Your task to perform on an android device: empty trash in google photos Image 0: 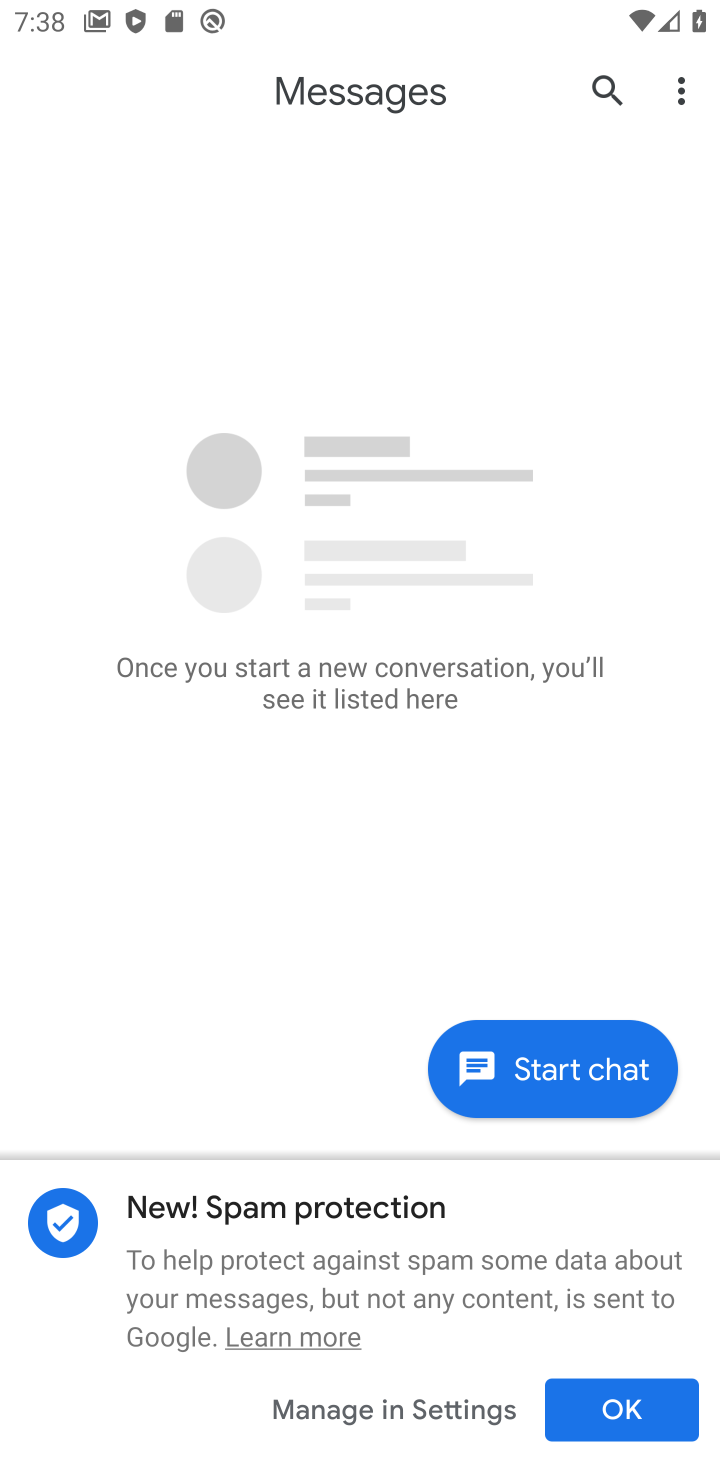
Step 0: press home button
Your task to perform on an android device: empty trash in google photos Image 1: 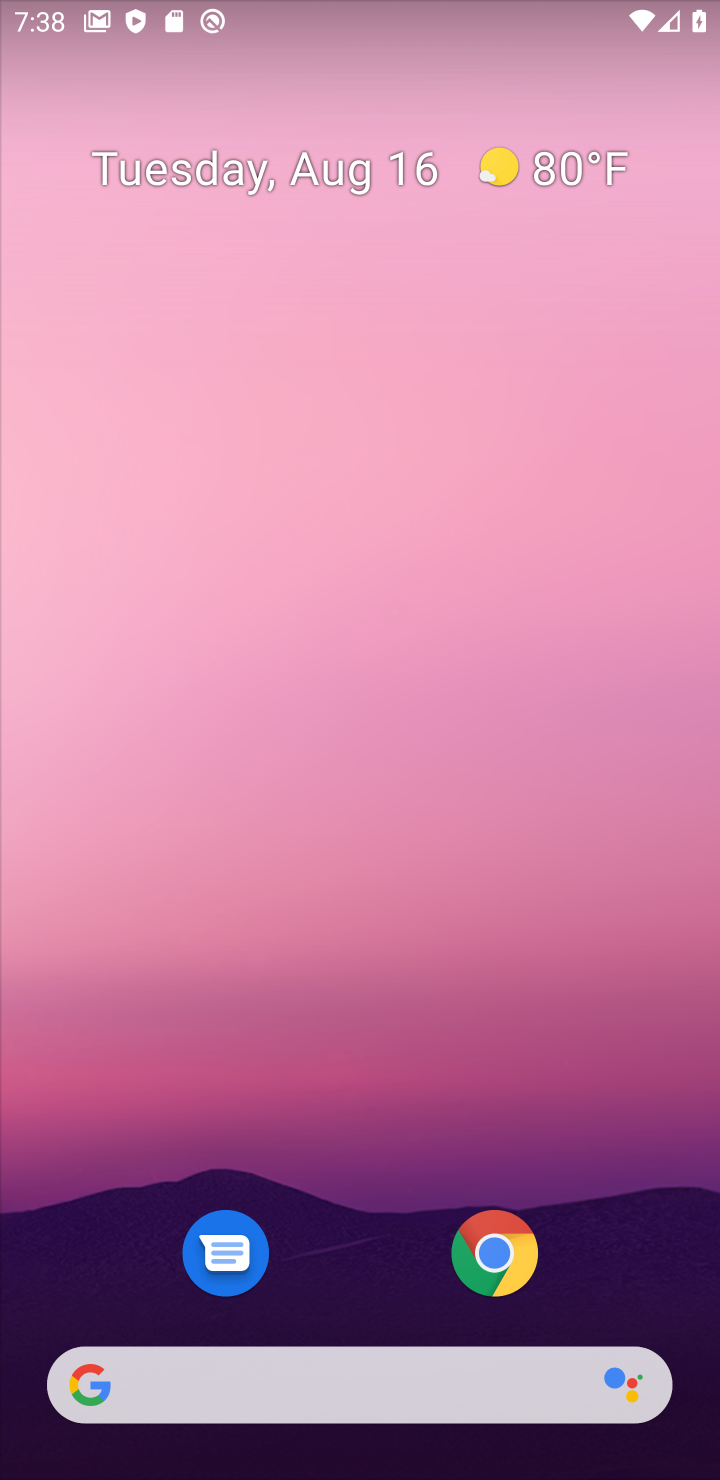
Step 1: drag from (299, 1402) to (400, 356)
Your task to perform on an android device: empty trash in google photos Image 2: 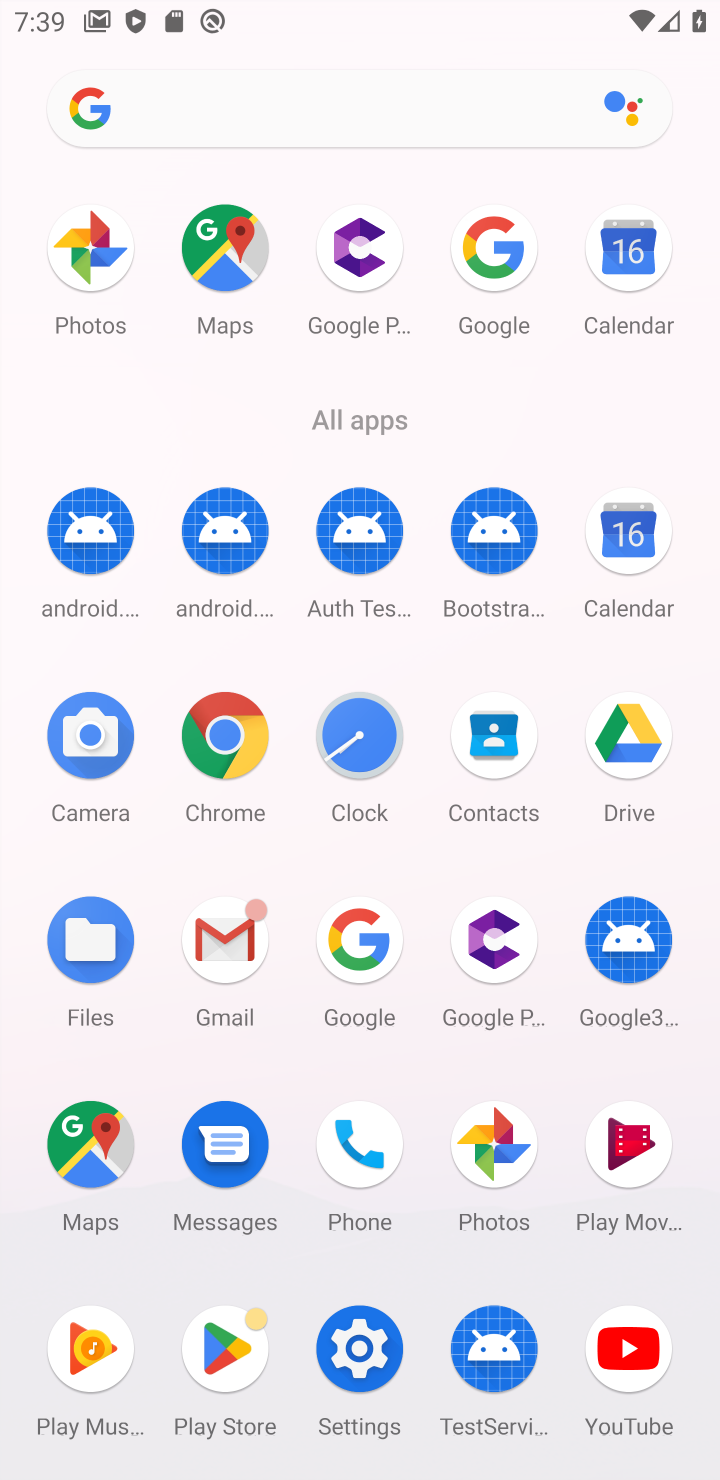
Step 2: click (88, 251)
Your task to perform on an android device: empty trash in google photos Image 3: 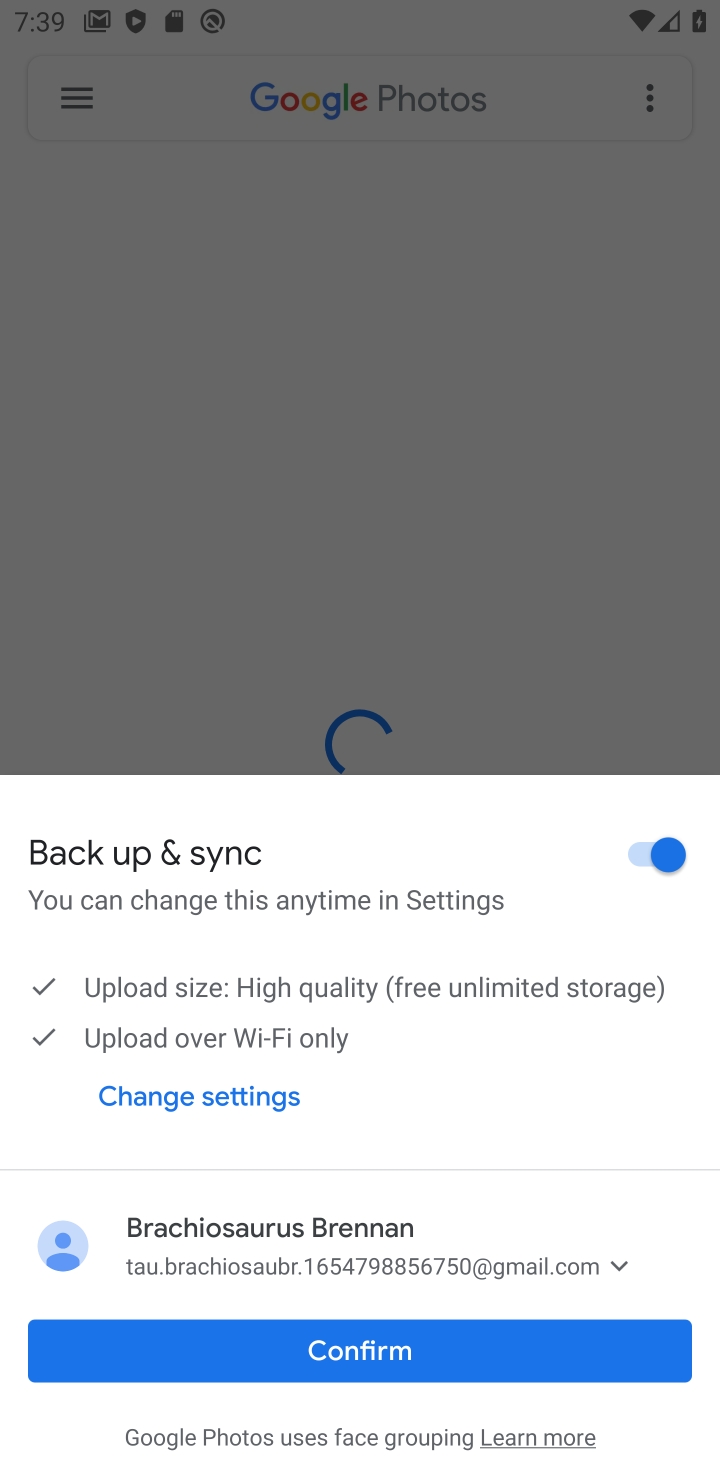
Step 3: click (386, 1348)
Your task to perform on an android device: empty trash in google photos Image 4: 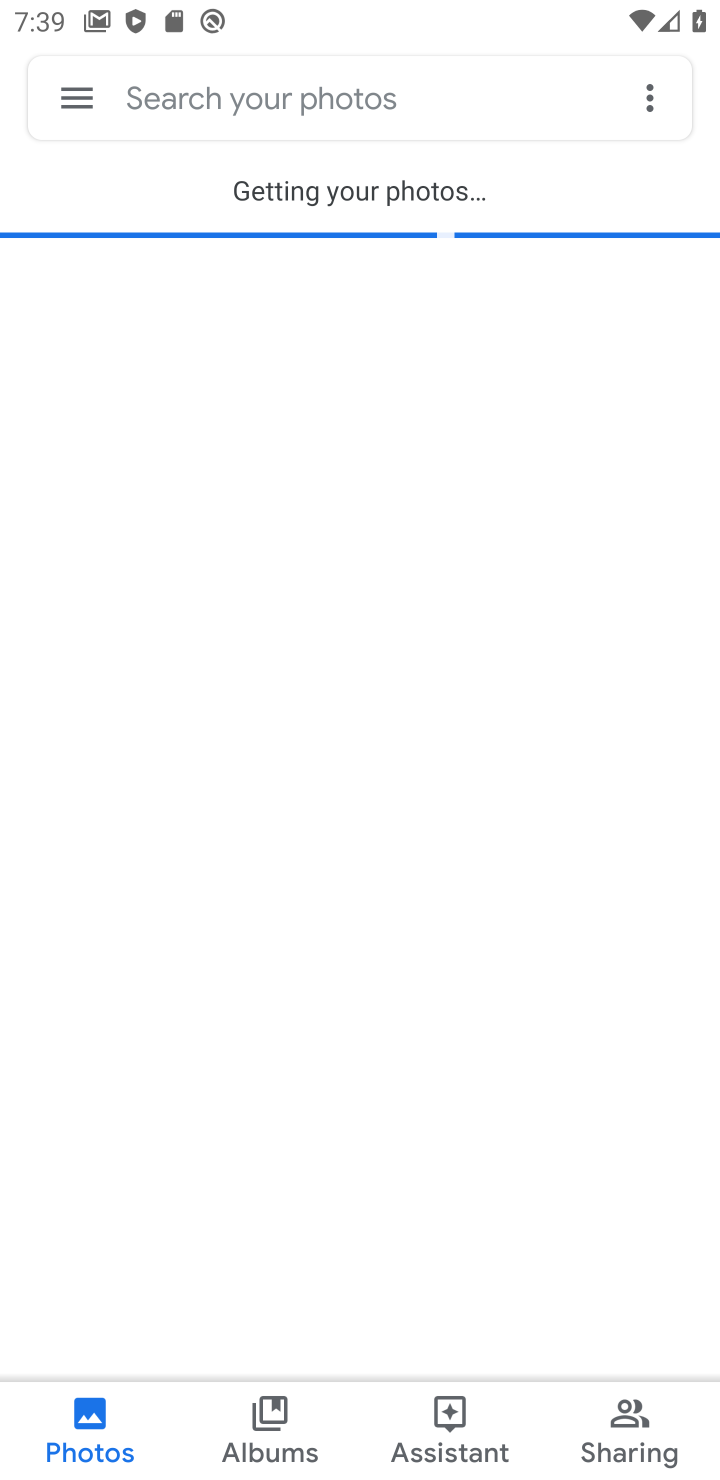
Step 4: click (78, 98)
Your task to perform on an android device: empty trash in google photos Image 5: 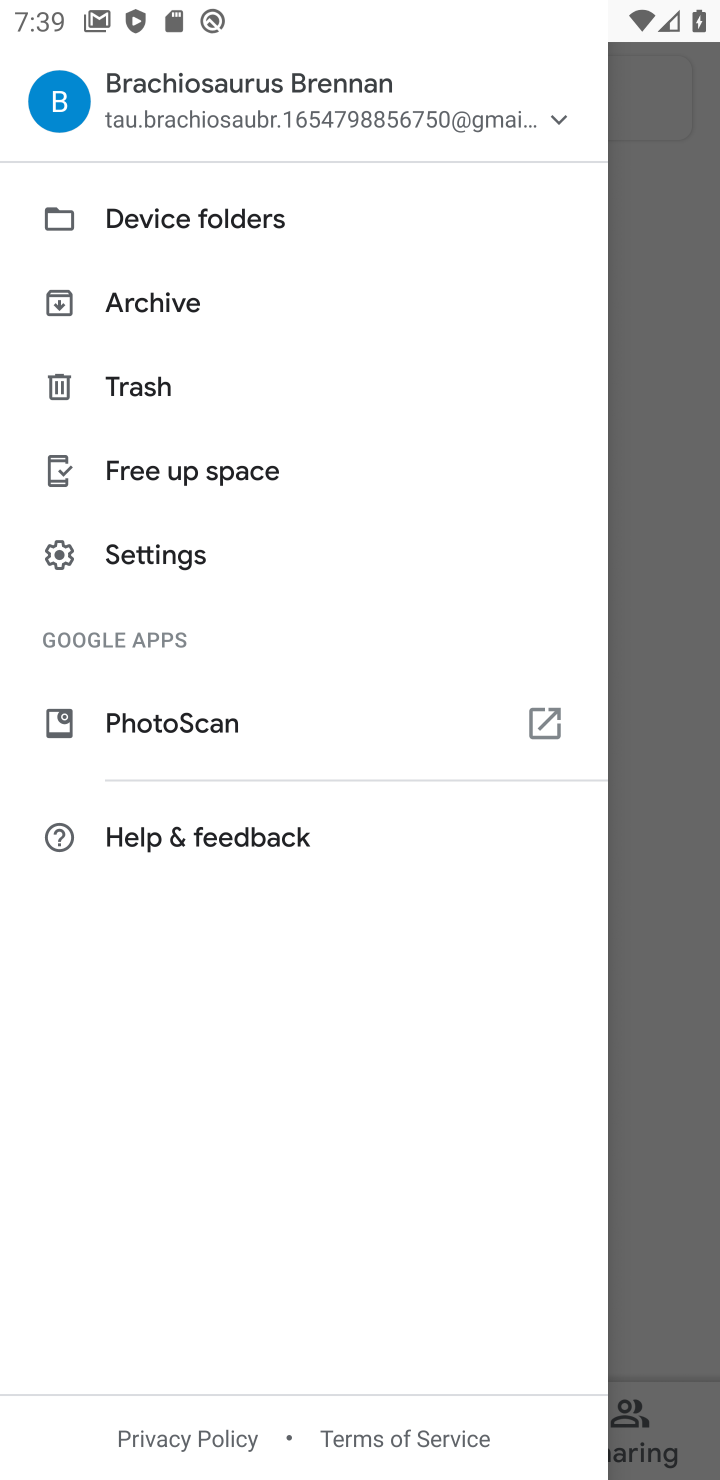
Step 5: click (147, 395)
Your task to perform on an android device: empty trash in google photos Image 6: 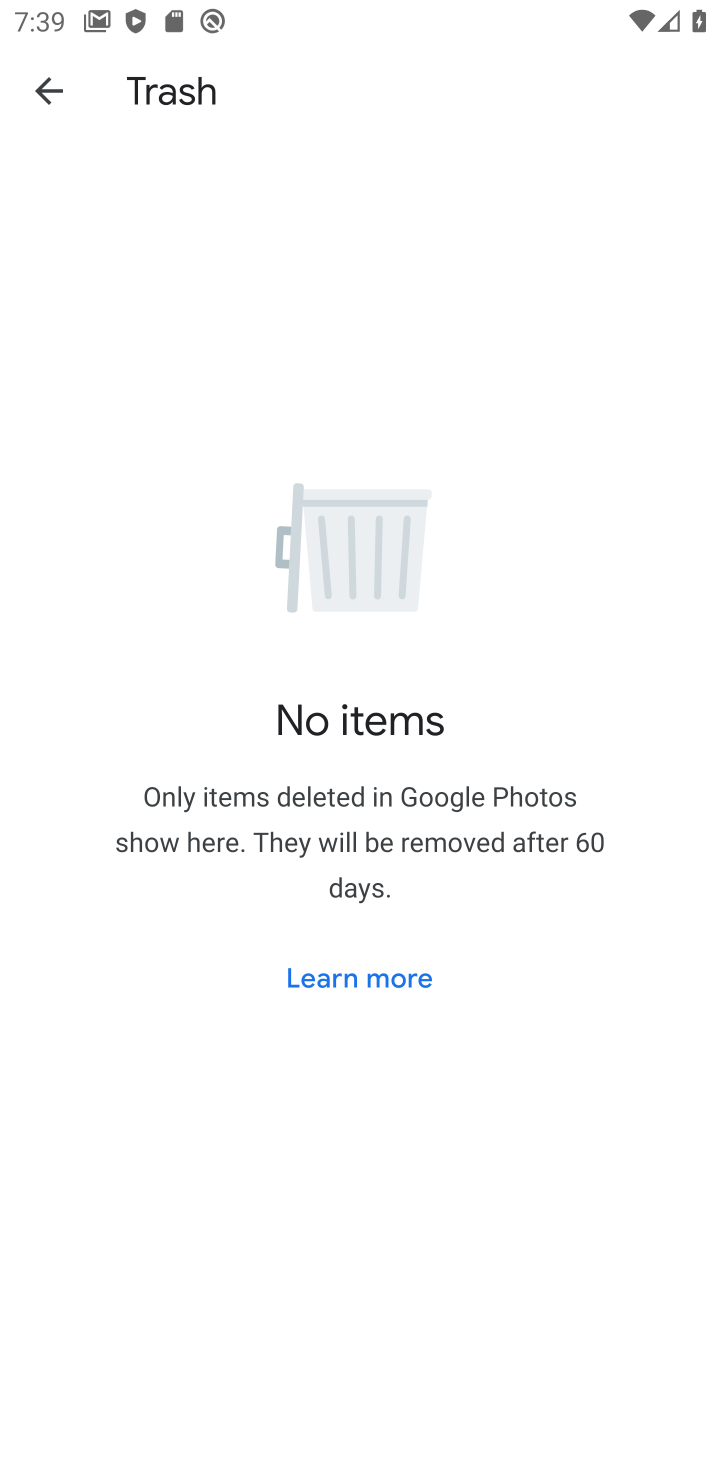
Step 6: task complete